Your task to perform on an android device: What's on my calendar tomorrow? Image 0: 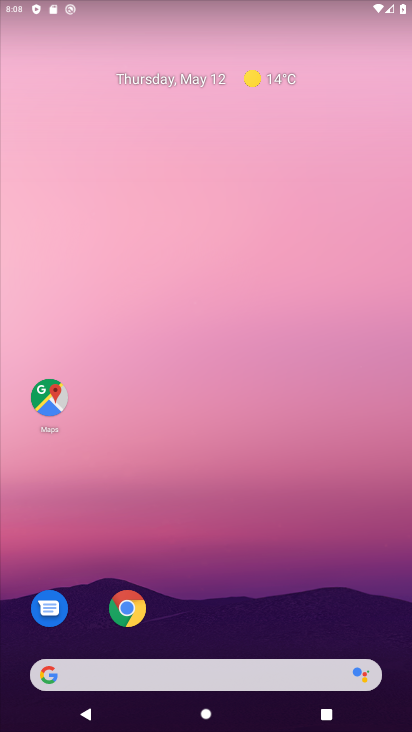
Step 0: drag from (184, 660) to (233, 210)
Your task to perform on an android device: What's on my calendar tomorrow? Image 1: 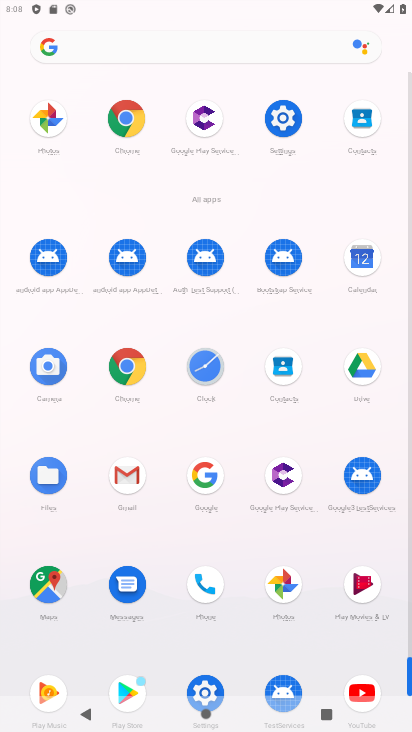
Step 1: click (358, 267)
Your task to perform on an android device: What's on my calendar tomorrow? Image 2: 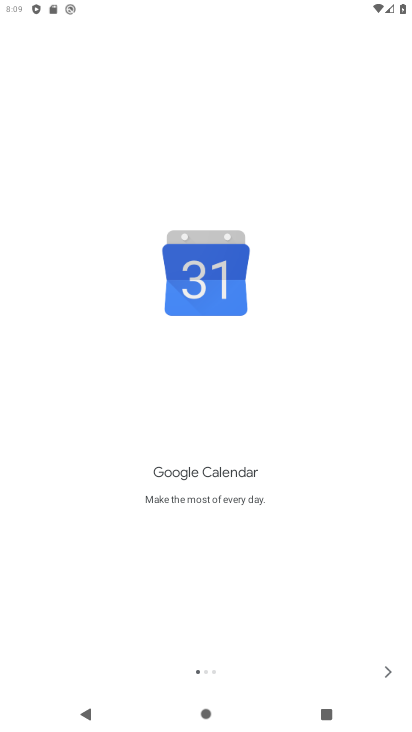
Step 2: click (382, 672)
Your task to perform on an android device: What's on my calendar tomorrow? Image 3: 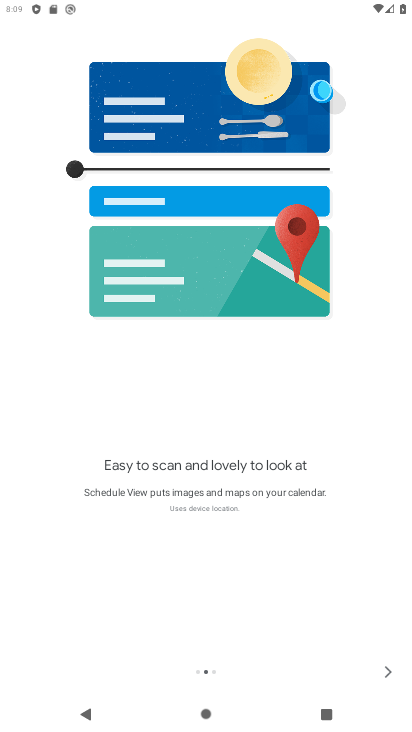
Step 3: click (388, 672)
Your task to perform on an android device: What's on my calendar tomorrow? Image 4: 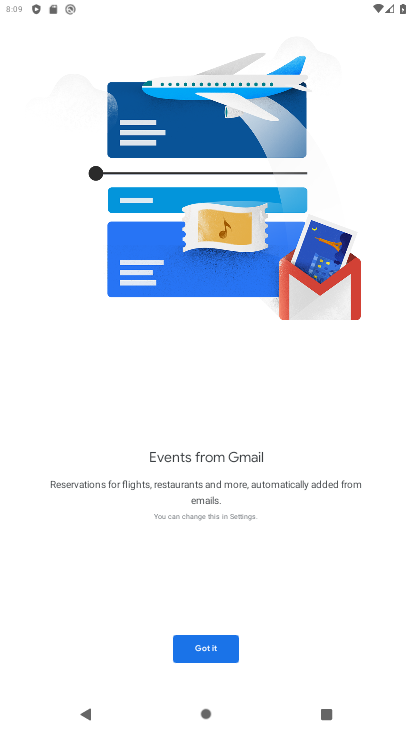
Step 4: click (229, 655)
Your task to perform on an android device: What's on my calendar tomorrow? Image 5: 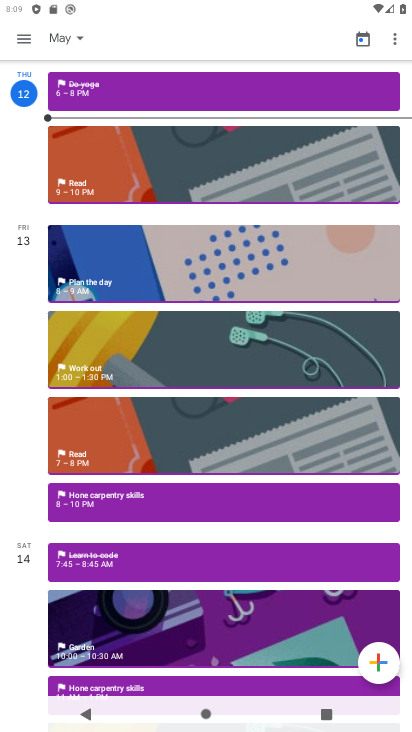
Step 5: drag from (227, 651) to (219, 276)
Your task to perform on an android device: What's on my calendar tomorrow? Image 6: 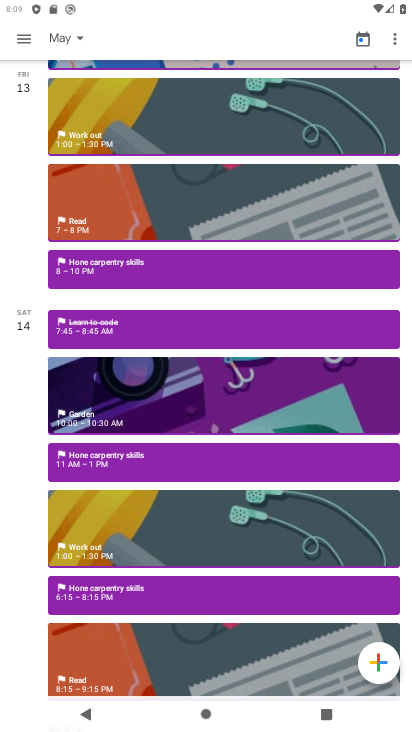
Step 6: click (142, 363)
Your task to perform on an android device: What's on my calendar tomorrow? Image 7: 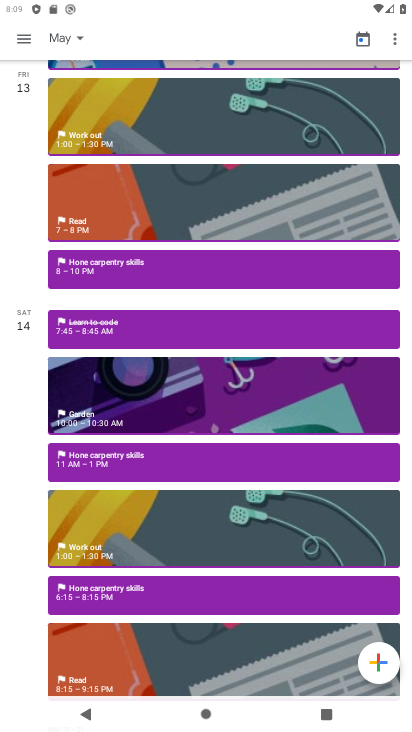
Step 7: task complete